Your task to perform on an android device: Turn on the flashlight Image 0: 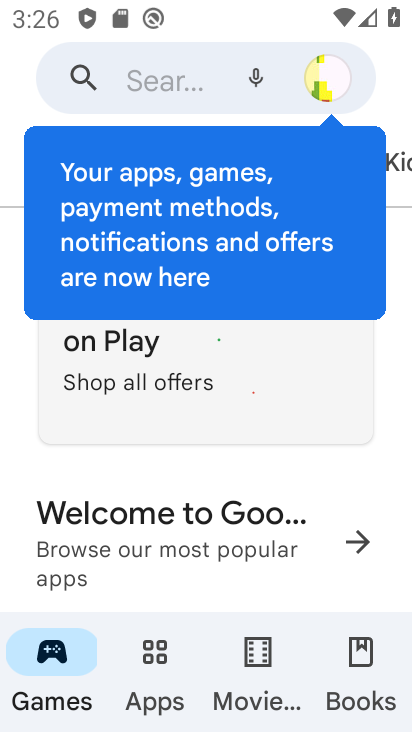
Step 0: press home button
Your task to perform on an android device: Turn on the flashlight Image 1: 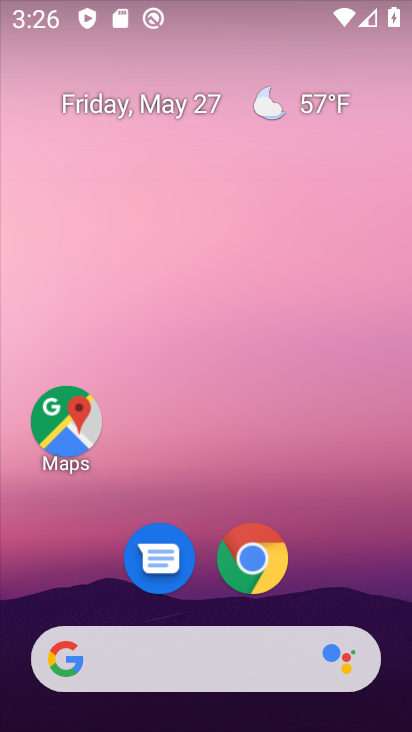
Step 1: drag from (351, 579) to (247, 11)
Your task to perform on an android device: Turn on the flashlight Image 2: 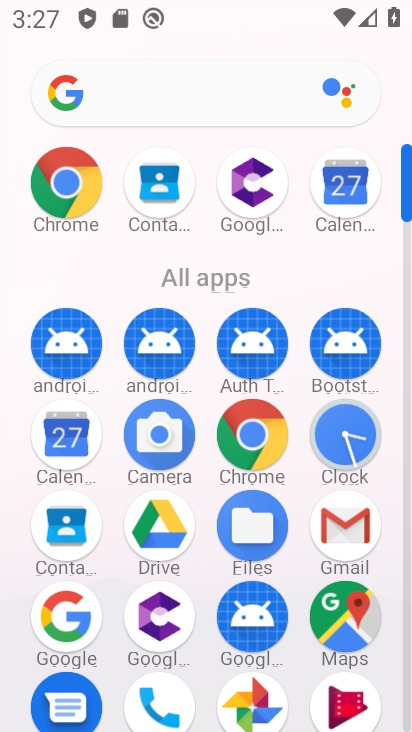
Step 2: click (410, 641)
Your task to perform on an android device: Turn on the flashlight Image 3: 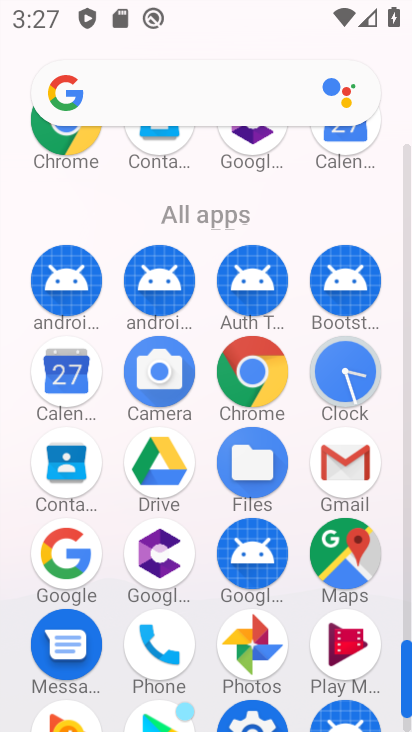
Step 3: click (244, 721)
Your task to perform on an android device: Turn on the flashlight Image 4: 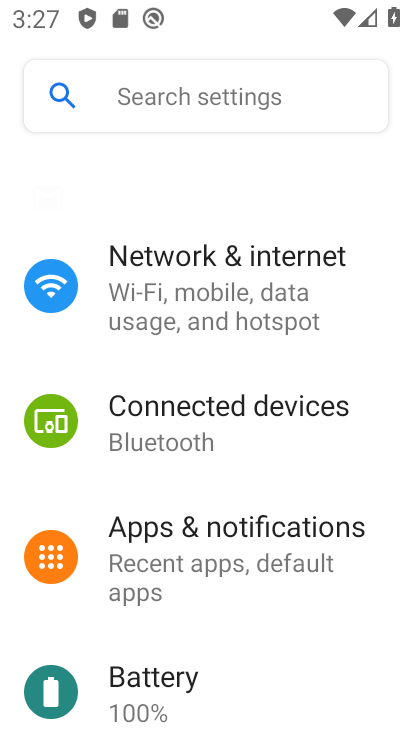
Step 4: click (230, 277)
Your task to perform on an android device: Turn on the flashlight Image 5: 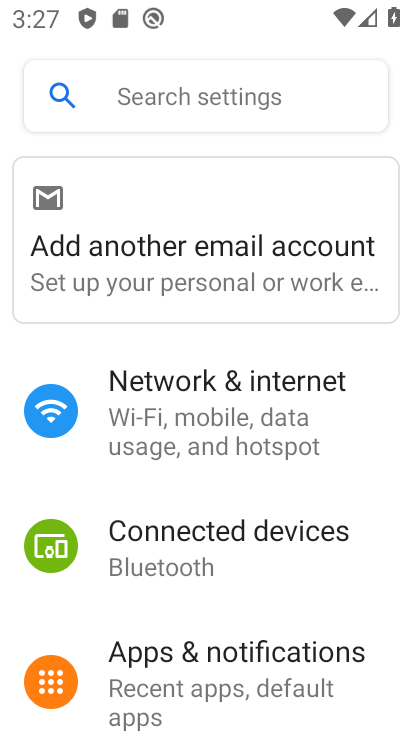
Step 5: task complete